Your task to perform on an android device: open app "Pinterest" (install if not already installed) Image 0: 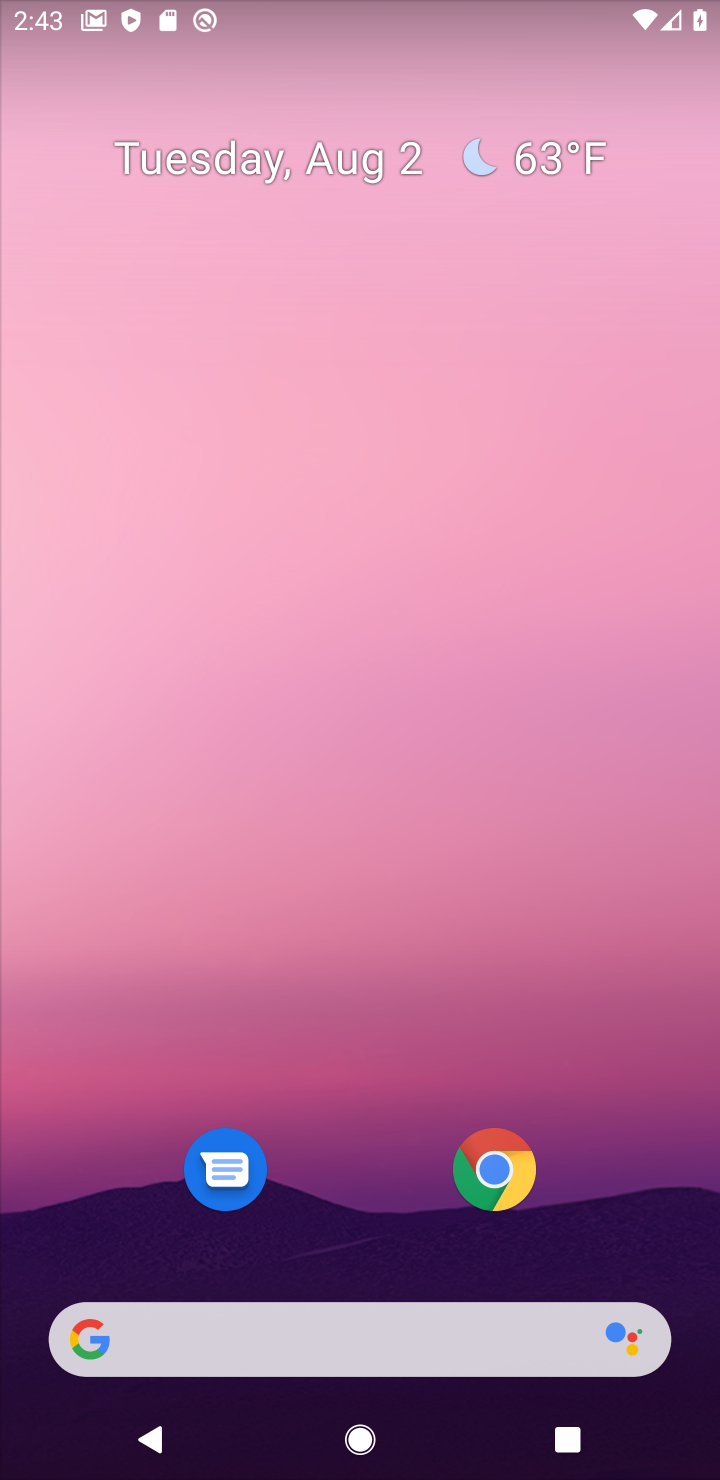
Step 0: drag from (349, 502) to (356, 390)
Your task to perform on an android device: open app "Pinterest" (install if not already installed) Image 1: 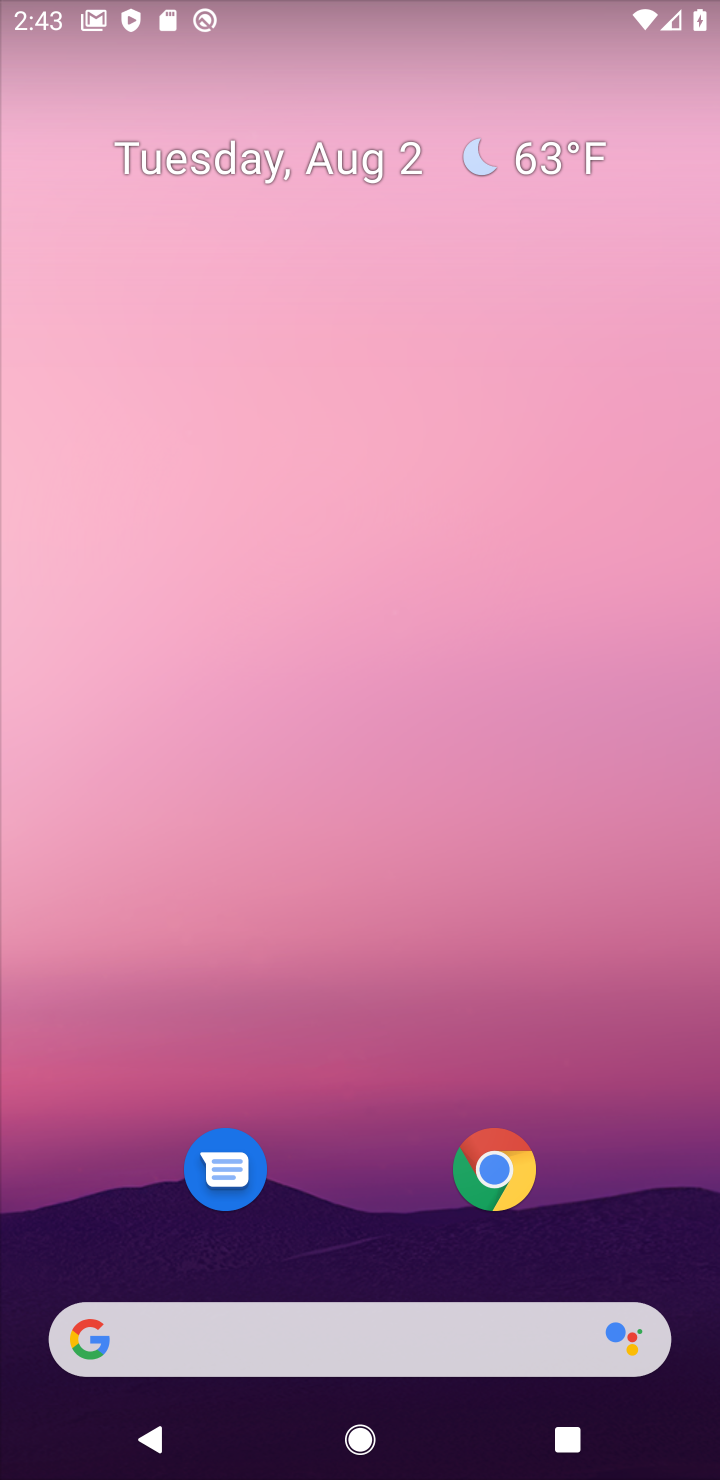
Step 1: drag from (332, 1253) to (434, 272)
Your task to perform on an android device: open app "Pinterest" (install if not already installed) Image 2: 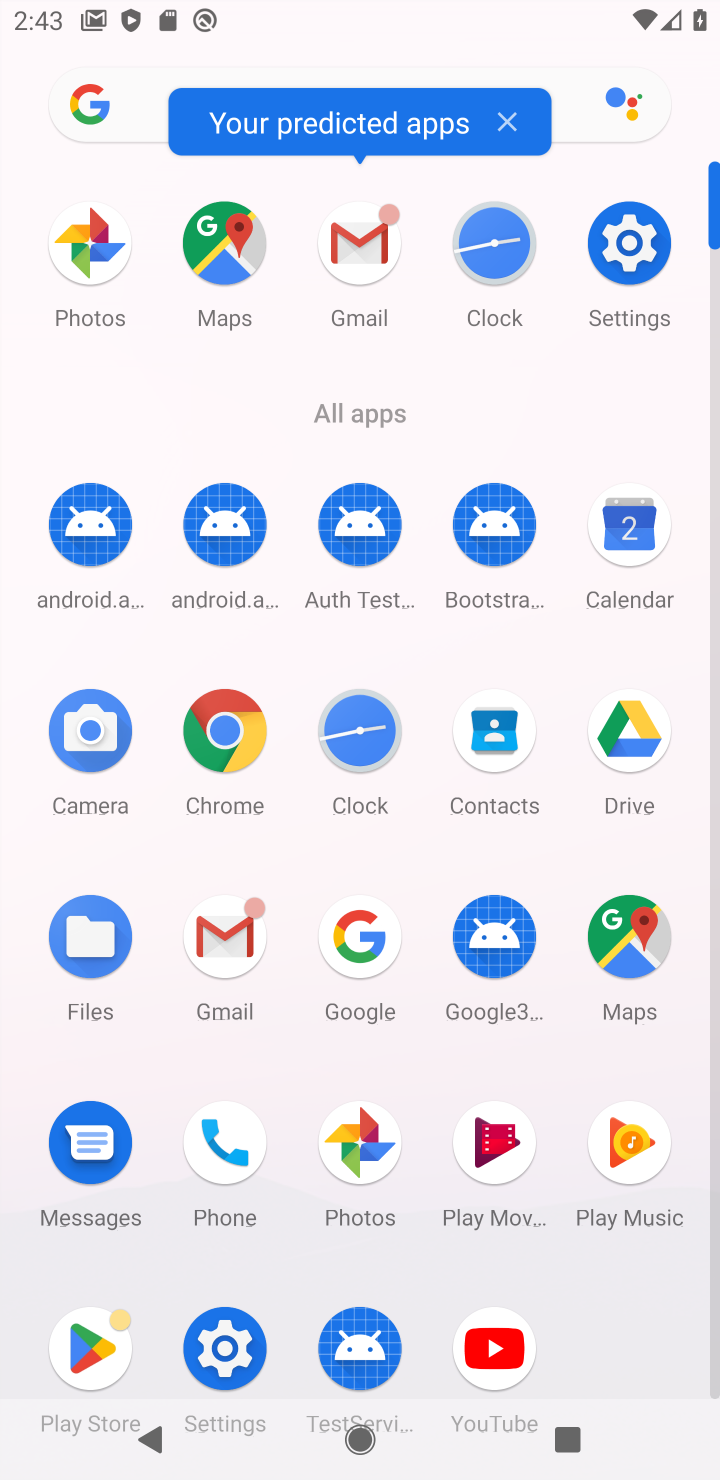
Step 2: click (79, 1367)
Your task to perform on an android device: open app "Pinterest" (install if not already installed) Image 3: 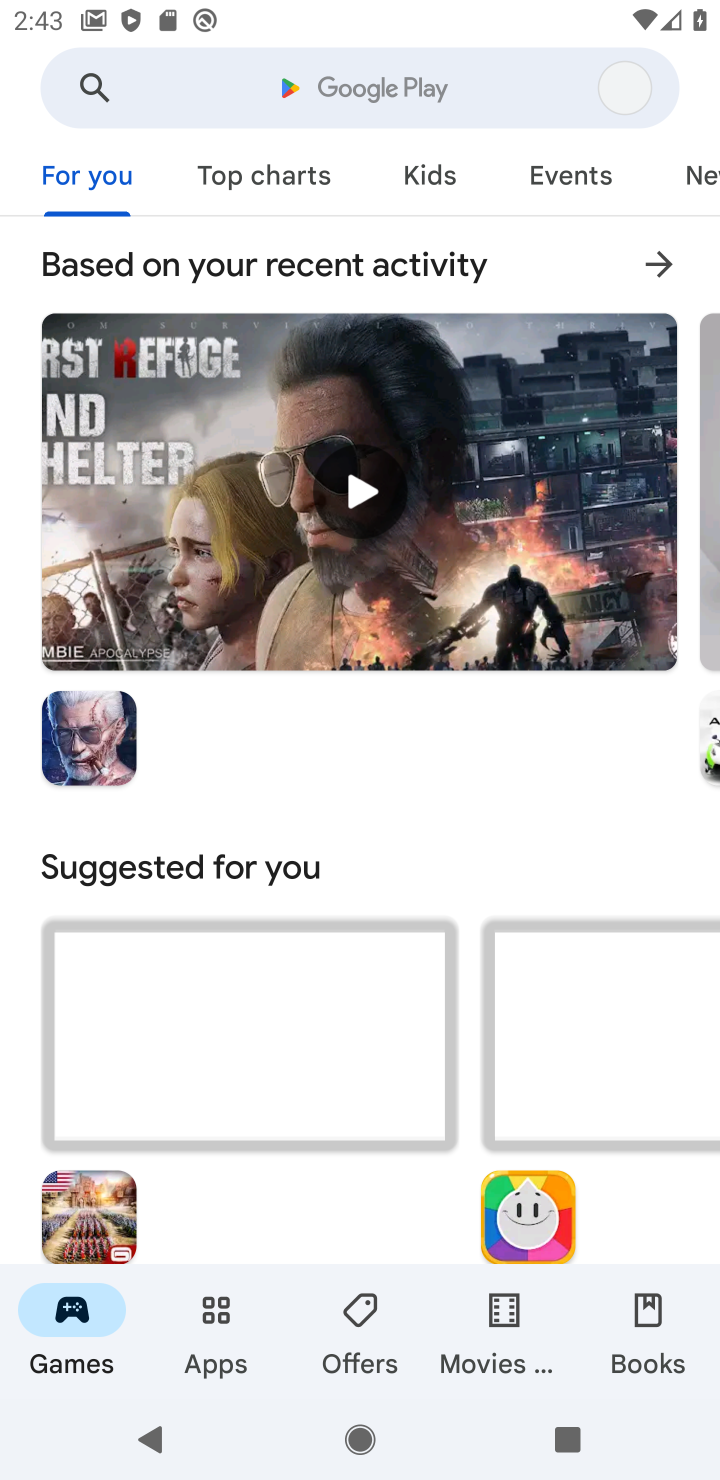
Step 3: click (352, 117)
Your task to perform on an android device: open app "Pinterest" (install if not already installed) Image 4: 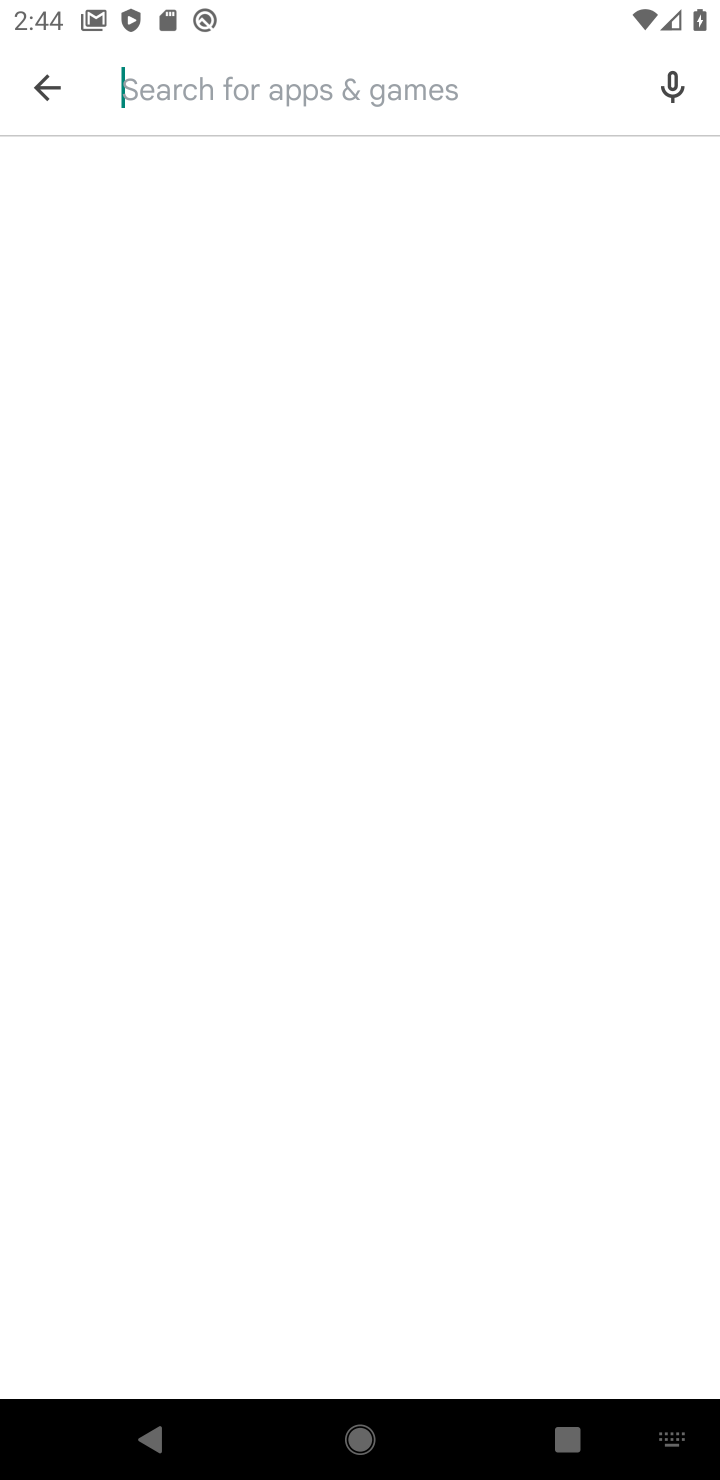
Step 4: type "Pinterest"
Your task to perform on an android device: open app "Pinterest" (install if not already installed) Image 5: 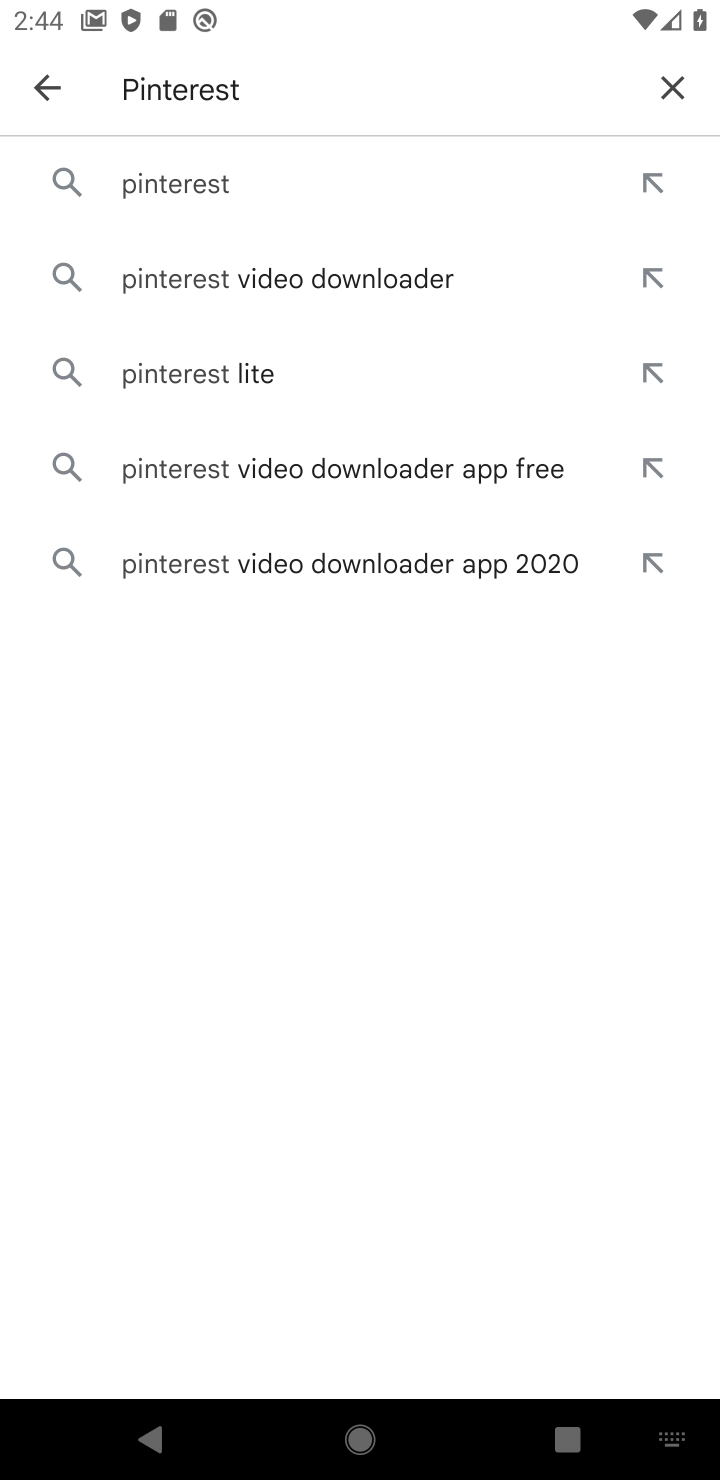
Step 5: click (202, 184)
Your task to perform on an android device: open app "Pinterest" (install if not already installed) Image 6: 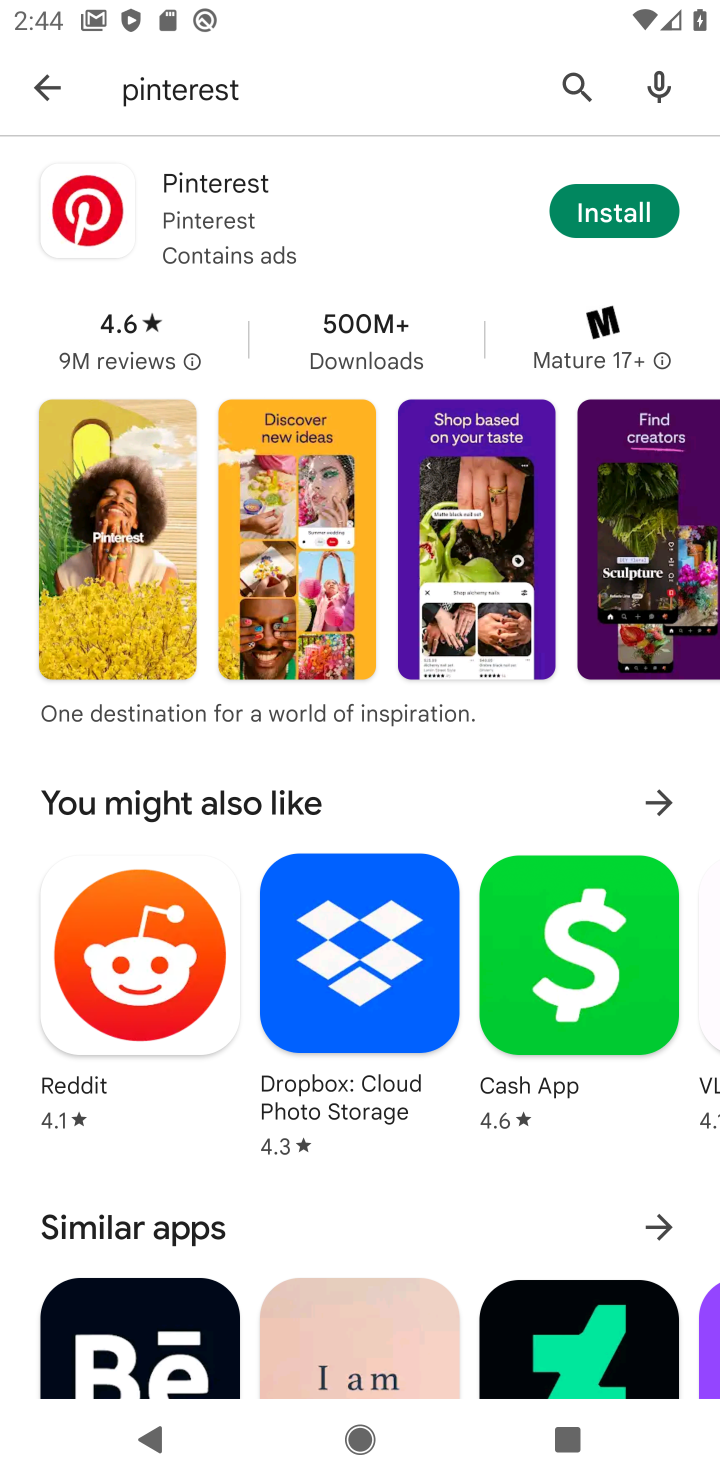
Step 6: click (563, 226)
Your task to perform on an android device: open app "Pinterest" (install if not already installed) Image 7: 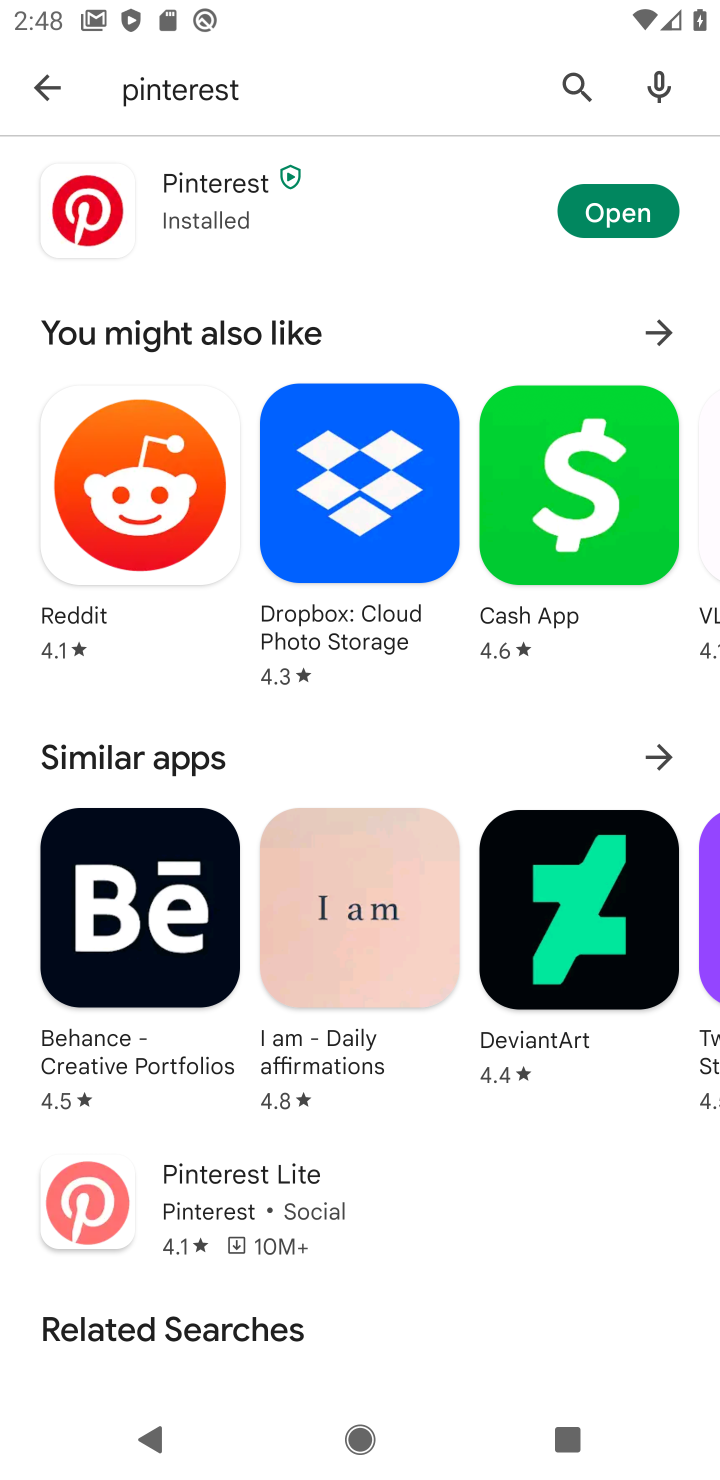
Step 7: click (588, 219)
Your task to perform on an android device: open app "Pinterest" (install if not already installed) Image 8: 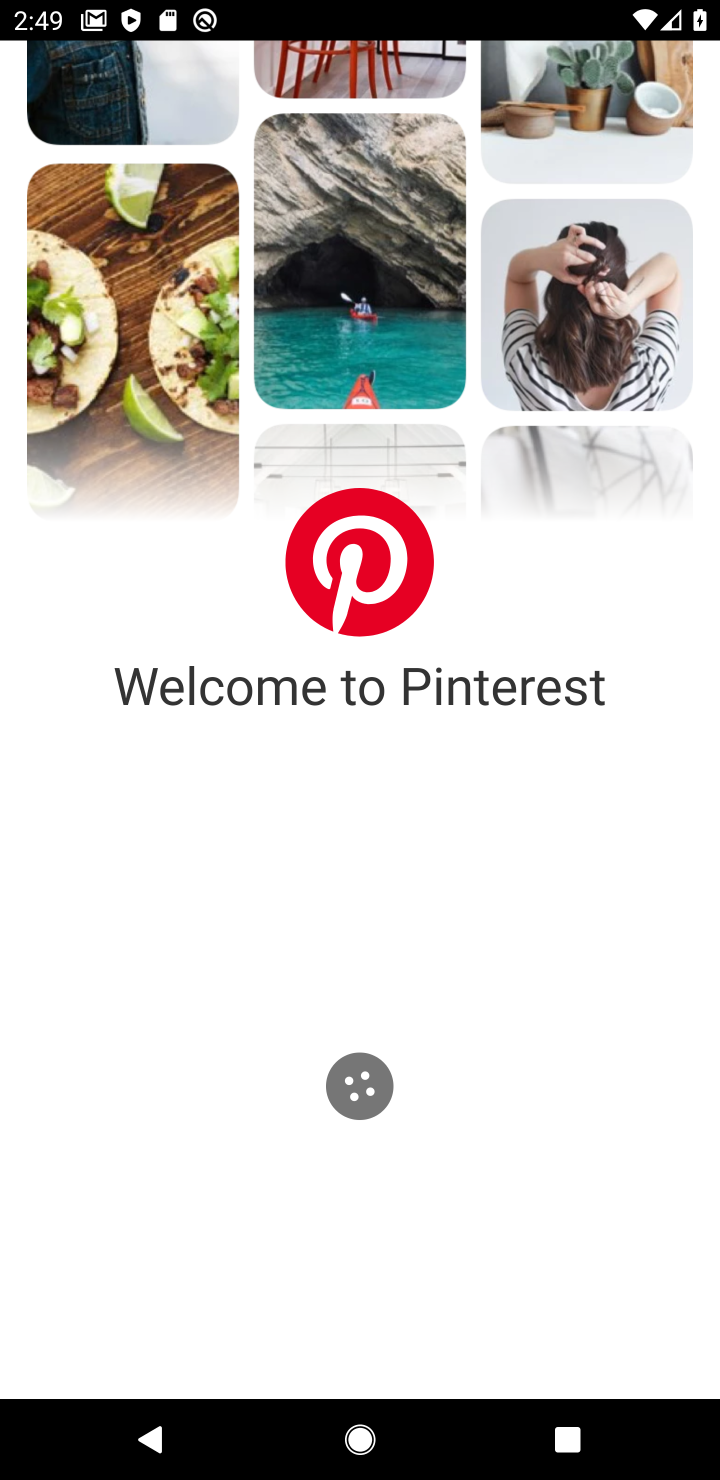
Step 8: task complete